Your task to perform on an android device: Search for "macbook pro 15 inch" on target.com, select the first entry, add it to the cart, then select checkout. Image 0: 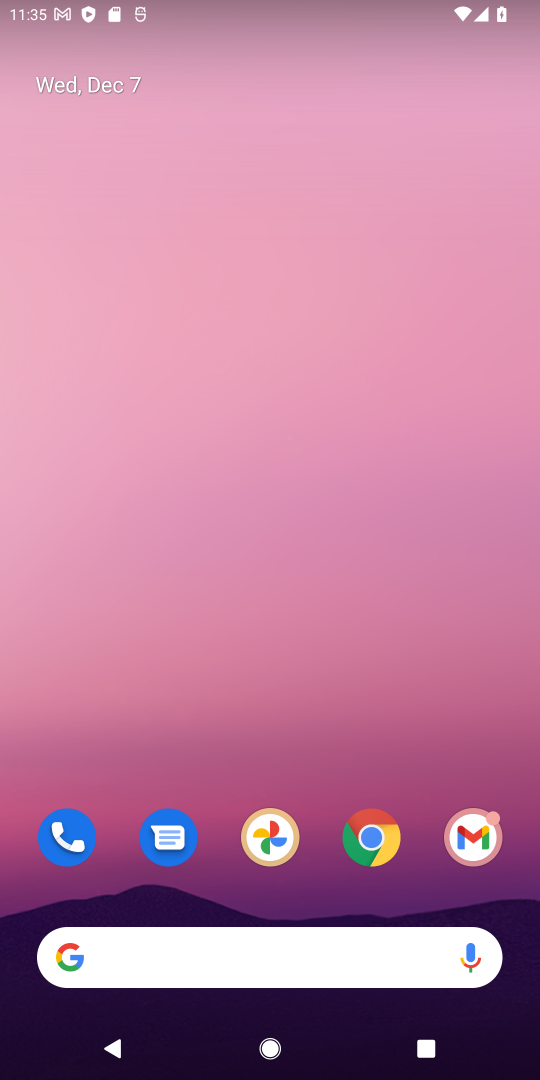
Step 0: click (372, 844)
Your task to perform on an android device: Search for "macbook pro 15 inch" on target.com, select the first entry, add it to the cart, then select checkout. Image 1: 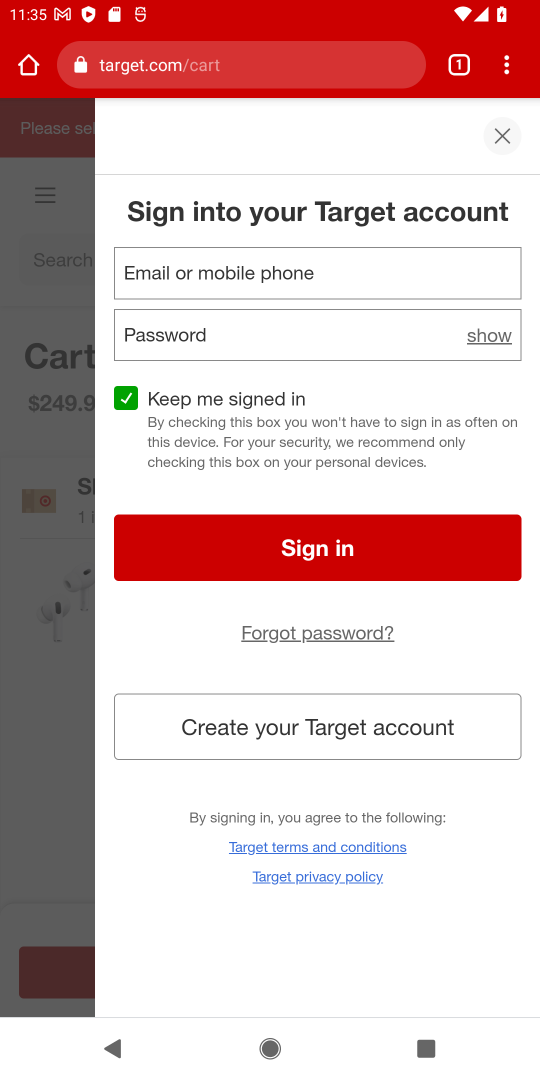
Step 1: click (505, 137)
Your task to perform on an android device: Search for "macbook pro 15 inch" on target.com, select the first entry, add it to the cart, then select checkout. Image 2: 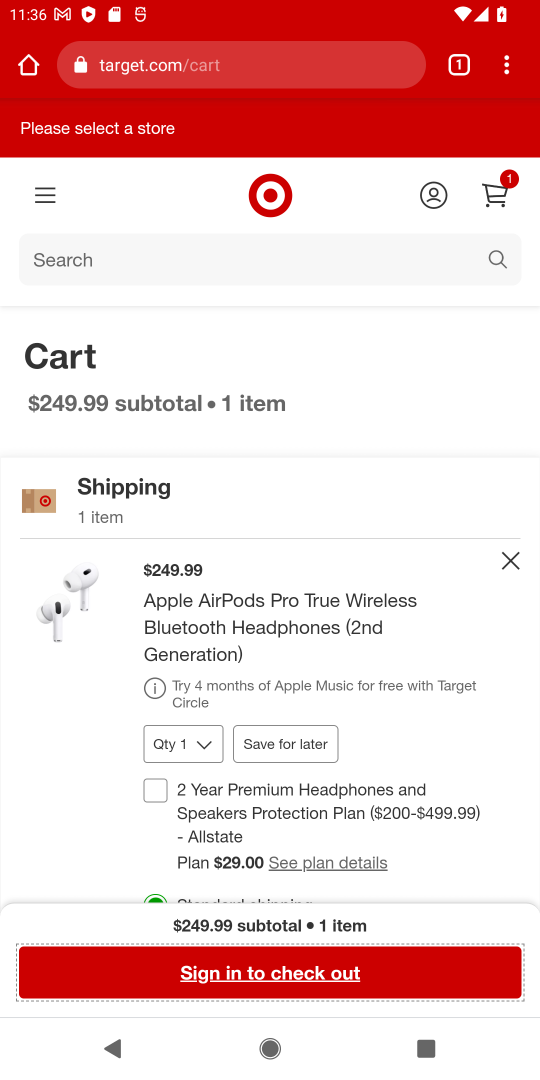
Step 2: click (497, 256)
Your task to perform on an android device: Search for "macbook pro 15 inch" on target.com, select the first entry, add it to the cart, then select checkout. Image 3: 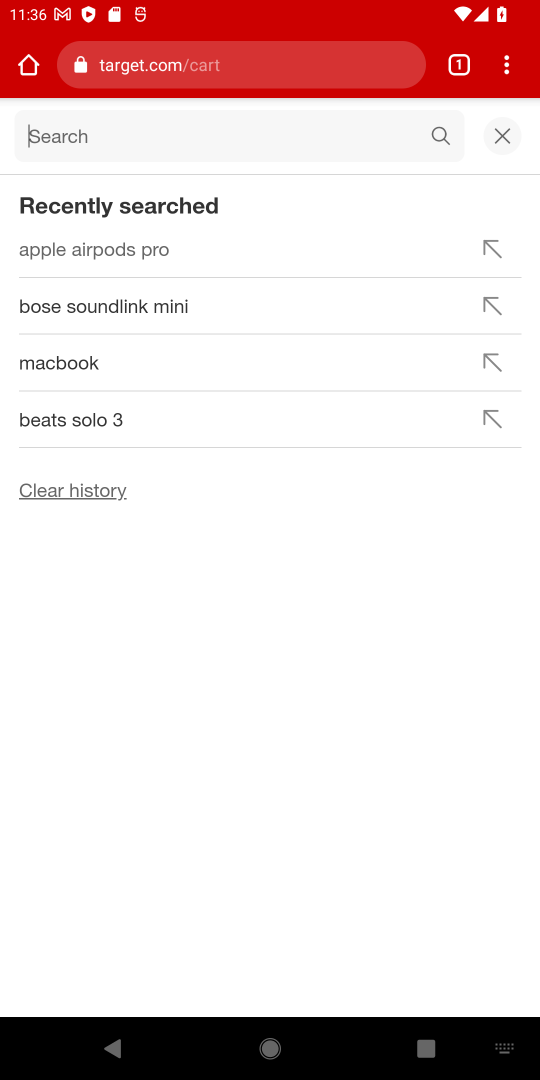
Step 3: type "macbook pro 15 inch"
Your task to perform on an android device: Search for "macbook pro 15 inch" on target.com, select the first entry, add it to the cart, then select checkout. Image 4: 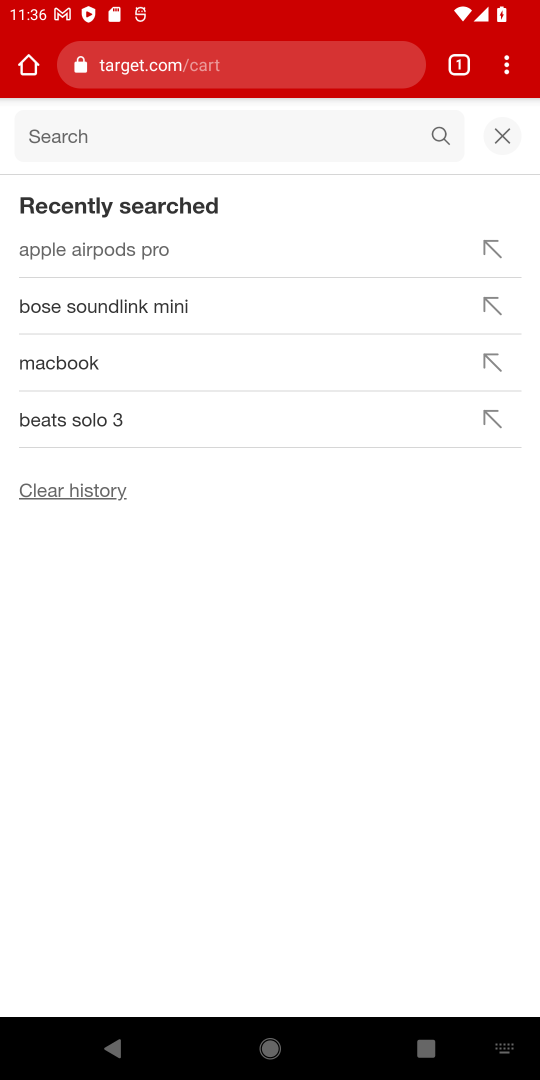
Step 4: press enter
Your task to perform on an android device: Search for "macbook pro 15 inch" on target.com, select the first entry, add it to the cart, then select checkout. Image 5: 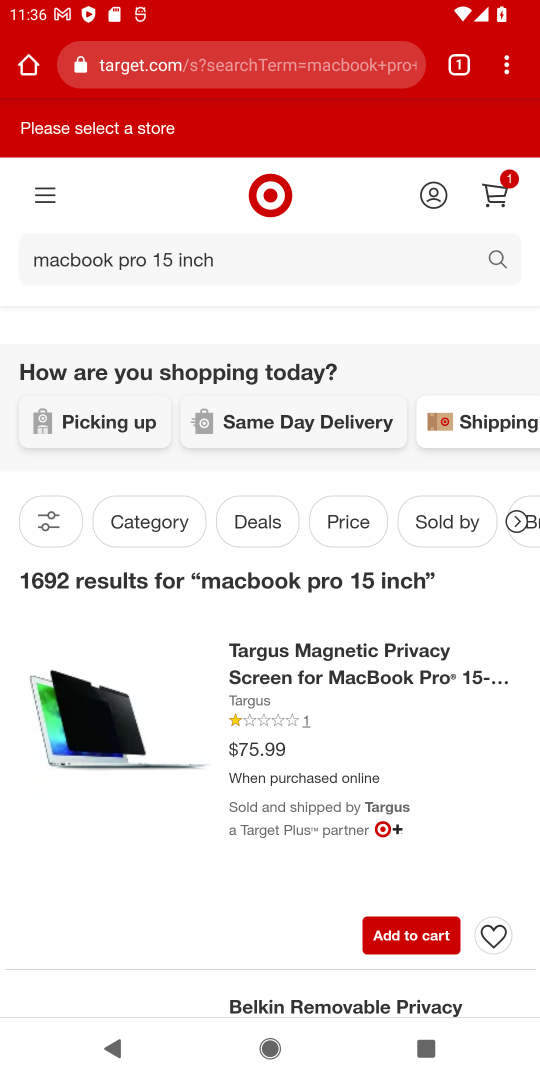
Step 5: drag from (485, 801) to (452, 676)
Your task to perform on an android device: Search for "macbook pro 15 inch" on target.com, select the first entry, add it to the cart, then select checkout. Image 6: 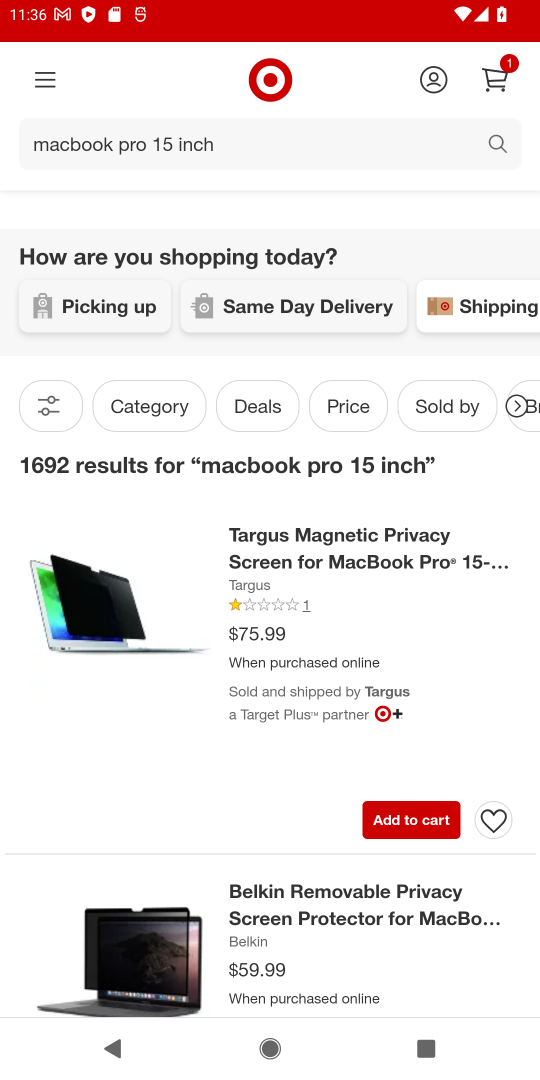
Step 6: drag from (432, 655) to (356, 364)
Your task to perform on an android device: Search for "macbook pro 15 inch" on target.com, select the first entry, add it to the cart, then select checkout. Image 7: 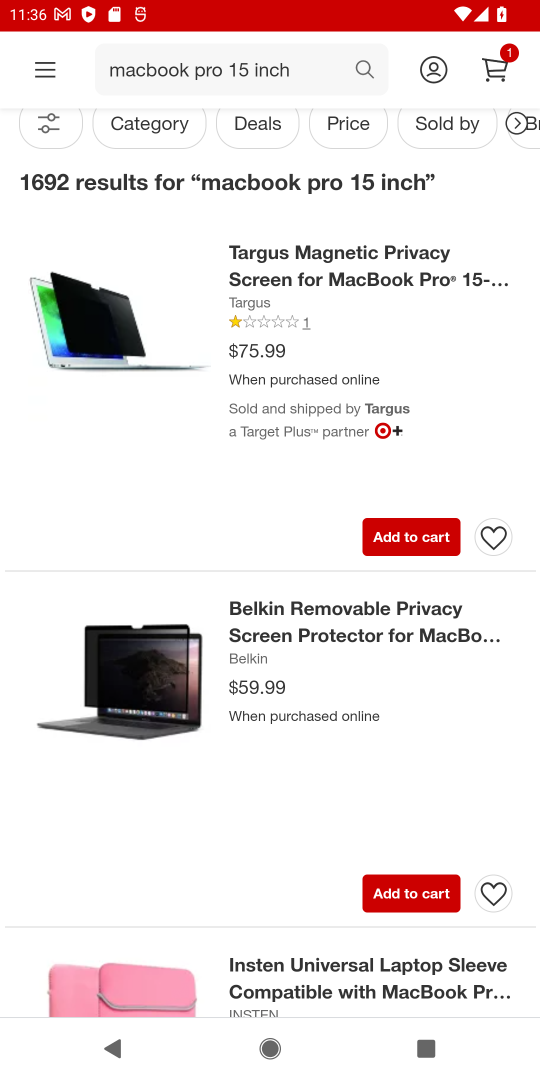
Step 7: drag from (483, 727) to (456, 479)
Your task to perform on an android device: Search for "macbook pro 15 inch" on target.com, select the first entry, add it to the cart, then select checkout. Image 8: 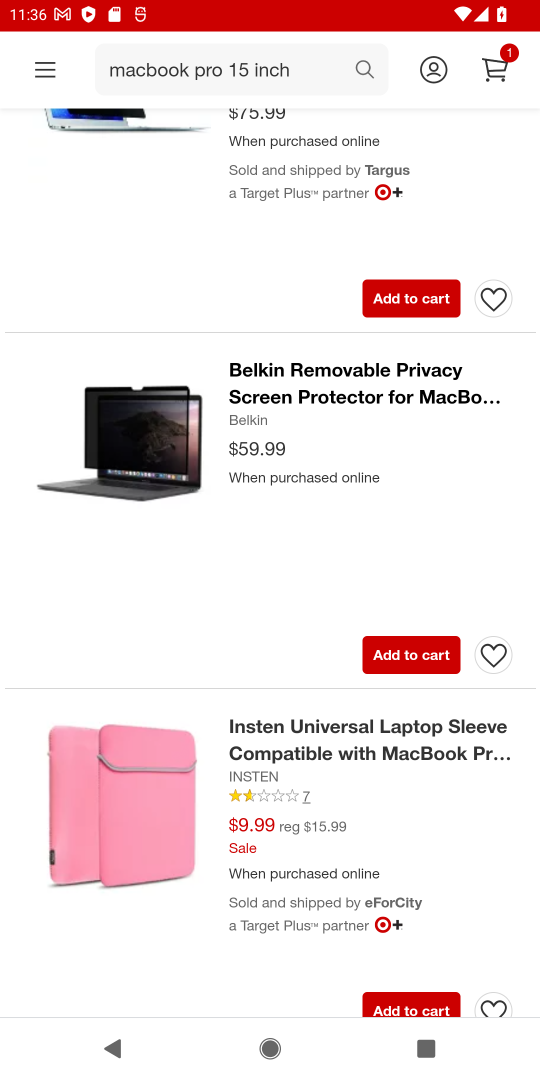
Step 8: drag from (453, 823) to (417, 522)
Your task to perform on an android device: Search for "macbook pro 15 inch" on target.com, select the first entry, add it to the cart, then select checkout. Image 9: 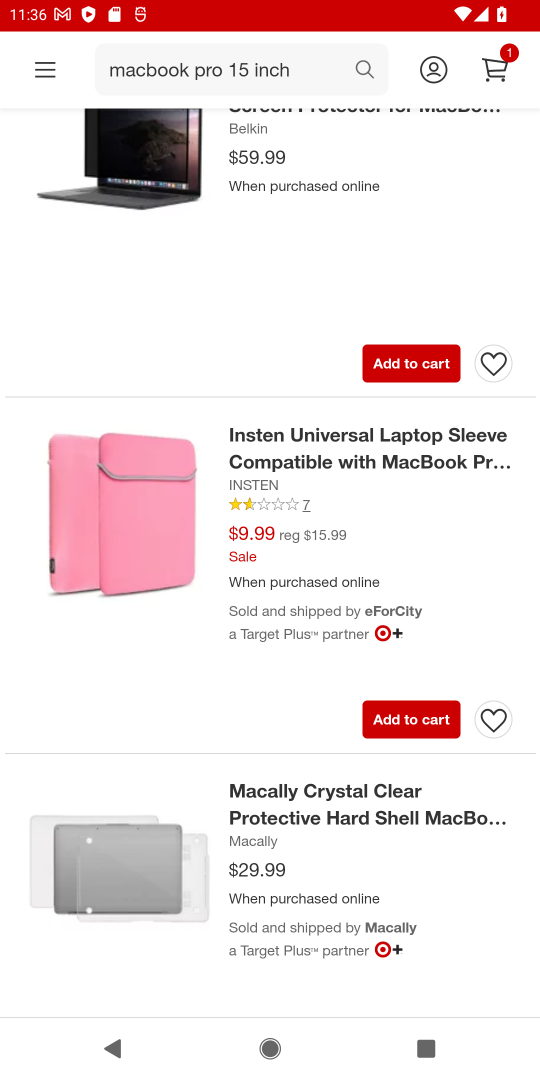
Step 9: drag from (279, 320) to (435, 944)
Your task to perform on an android device: Search for "macbook pro 15 inch" on target.com, select the first entry, add it to the cart, then select checkout. Image 10: 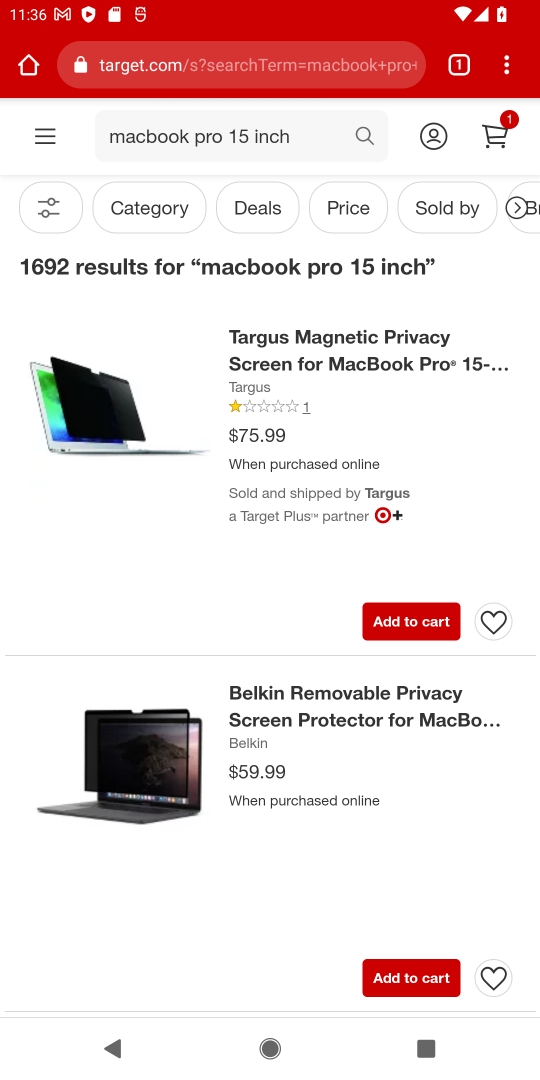
Step 10: drag from (415, 436) to (451, 658)
Your task to perform on an android device: Search for "macbook pro 15 inch" on target.com, select the first entry, add it to the cart, then select checkout. Image 11: 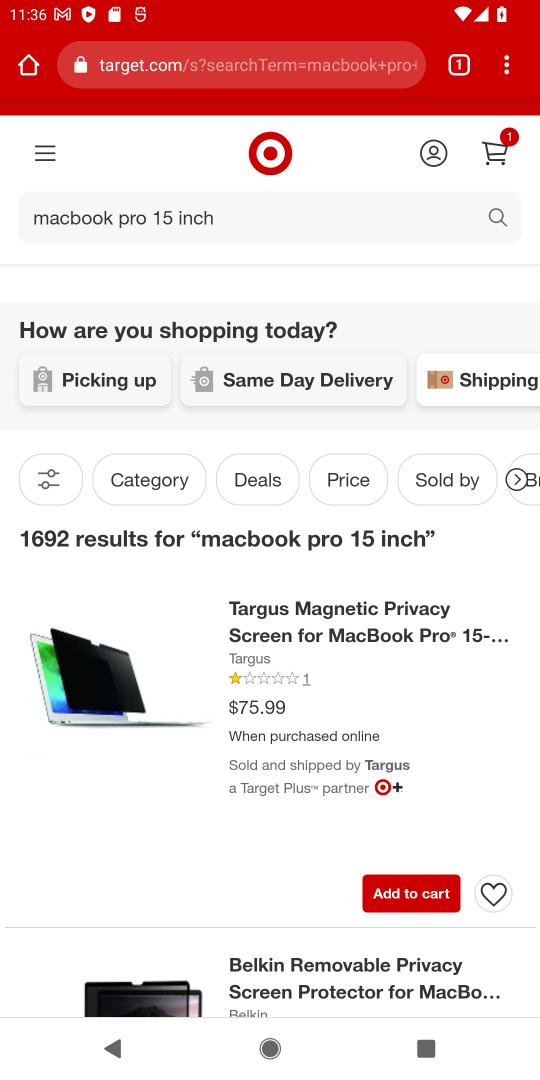
Step 11: drag from (448, 775) to (396, 312)
Your task to perform on an android device: Search for "macbook pro 15 inch" on target.com, select the first entry, add it to the cart, then select checkout. Image 12: 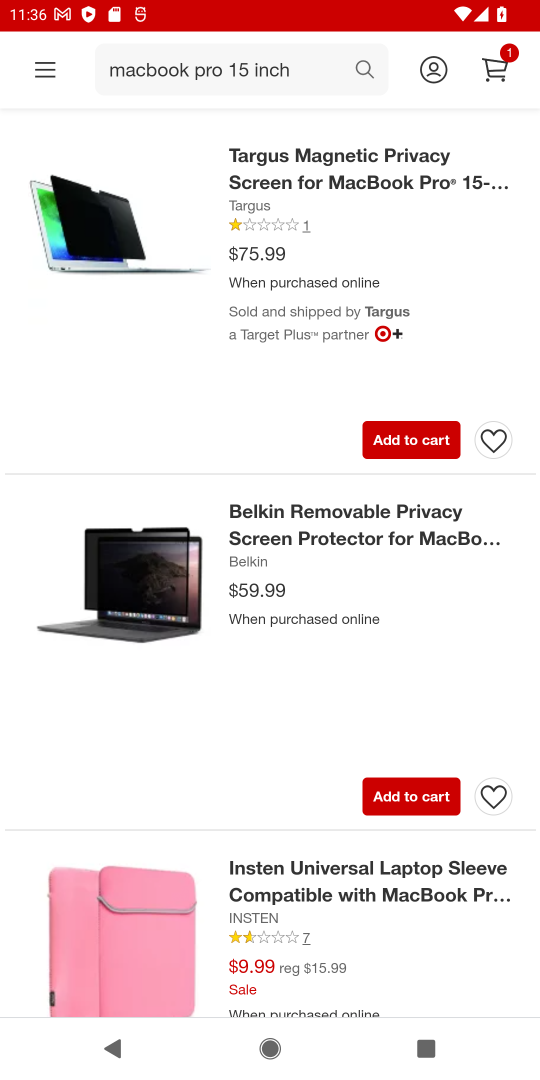
Step 12: drag from (410, 281) to (462, 648)
Your task to perform on an android device: Search for "macbook pro 15 inch" on target.com, select the first entry, add it to the cart, then select checkout. Image 13: 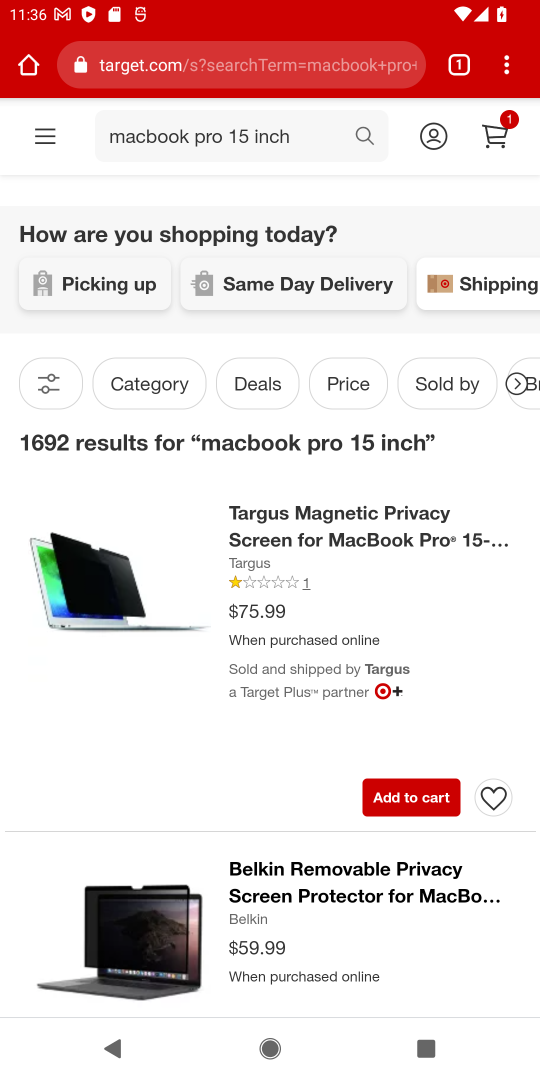
Step 13: click (104, 562)
Your task to perform on an android device: Search for "macbook pro 15 inch" on target.com, select the first entry, add it to the cart, then select checkout. Image 14: 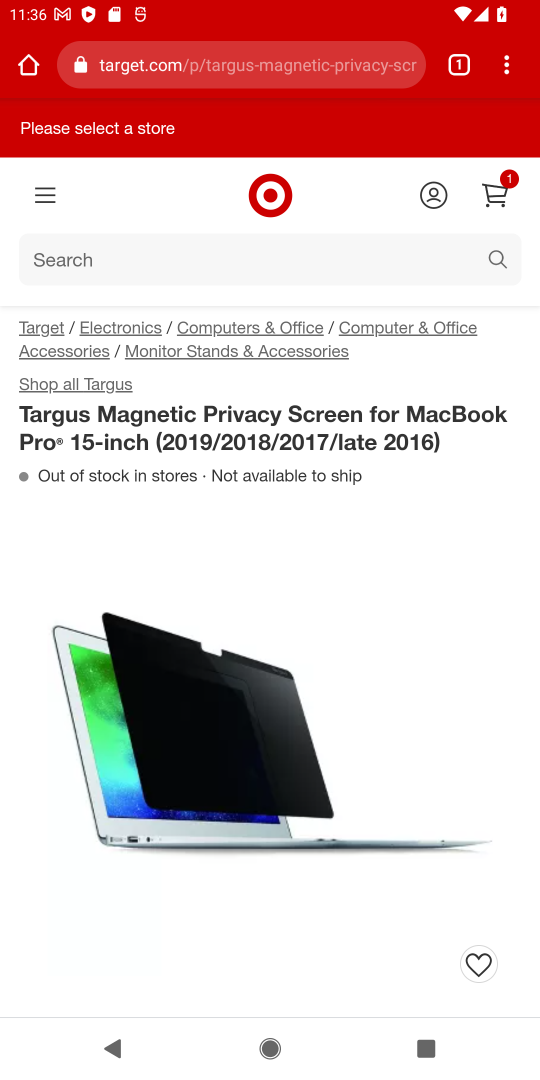
Step 14: drag from (421, 763) to (379, 293)
Your task to perform on an android device: Search for "macbook pro 15 inch" on target.com, select the first entry, add it to the cart, then select checkout. Image 15: 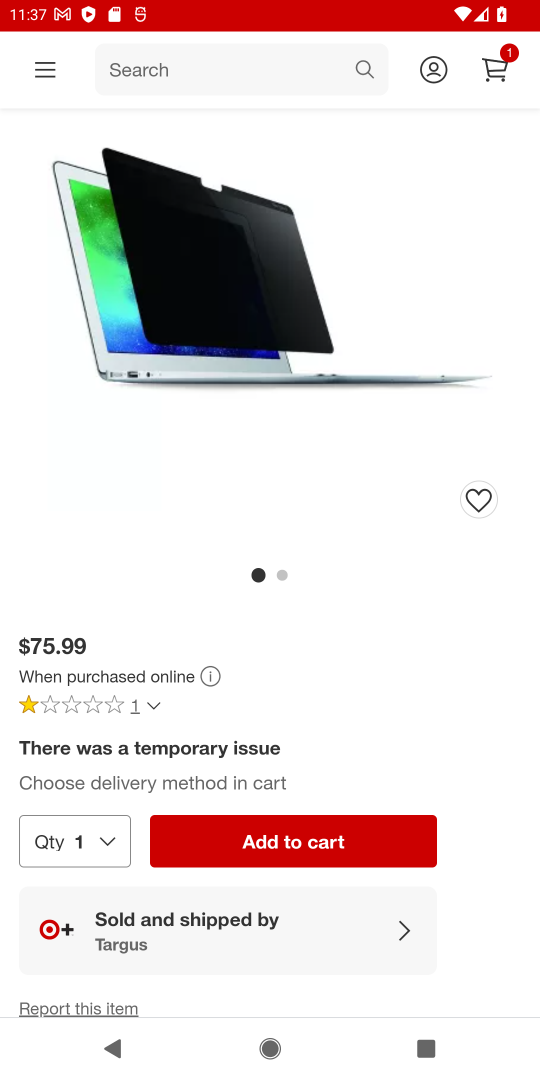
Step 15: click (349, 839)
Your task to perform on an android device: Search for "macbook pro 15 inch" on target.com, select the first entry, add it to the cart, then select checkout. Image 16: 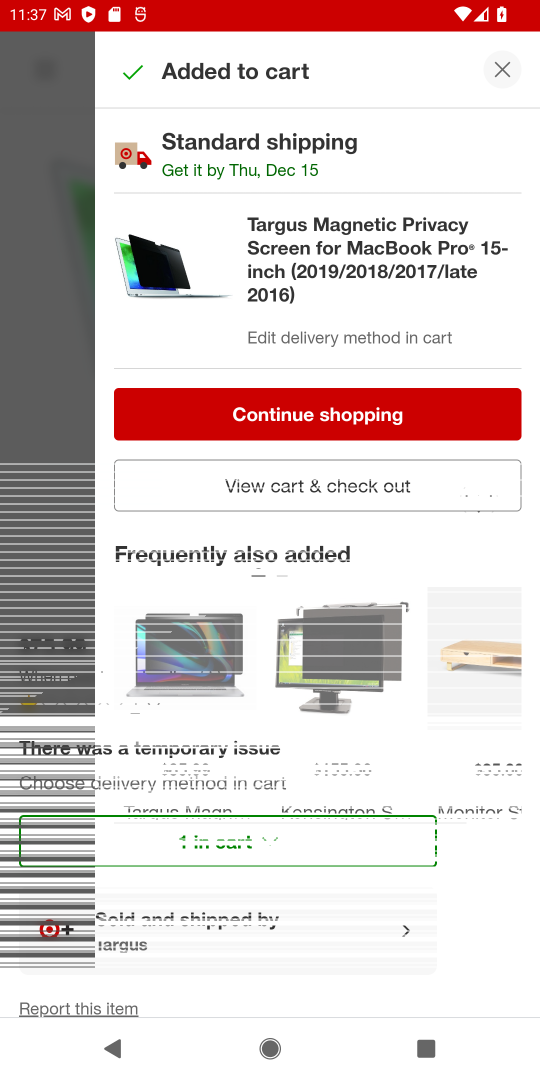
Step 16: click (297, 486)
Your task to perform on an android device: Search for "macbook pro 15 inch" on target.com, select the first entry, add it to the cart, then select checkout. Image 17: 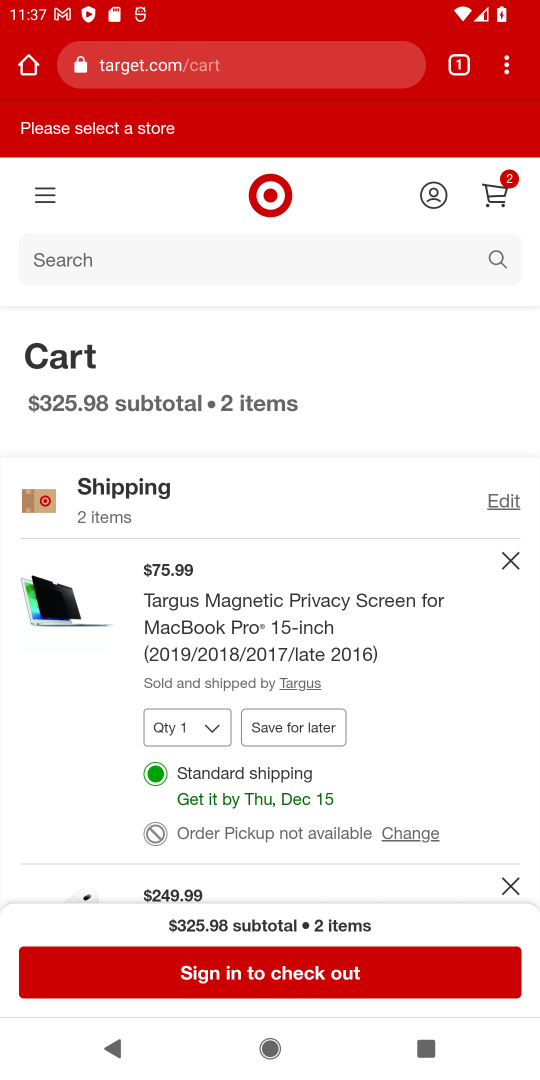
Step 17: click (330, 974)
Your task to perform on an android device: Search for "macbook pro 15 inch" on target.com, select the first entry, add it to the cart, then select checkout. Image 18: 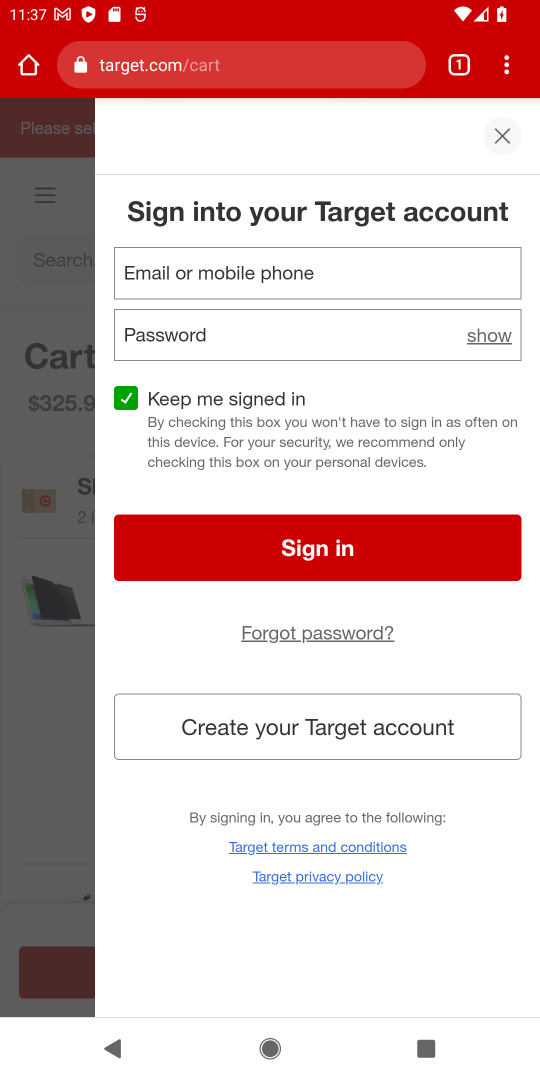
Step 18: task complete